Your task to perform on an android device: turn on bluetooth scan Image 0: 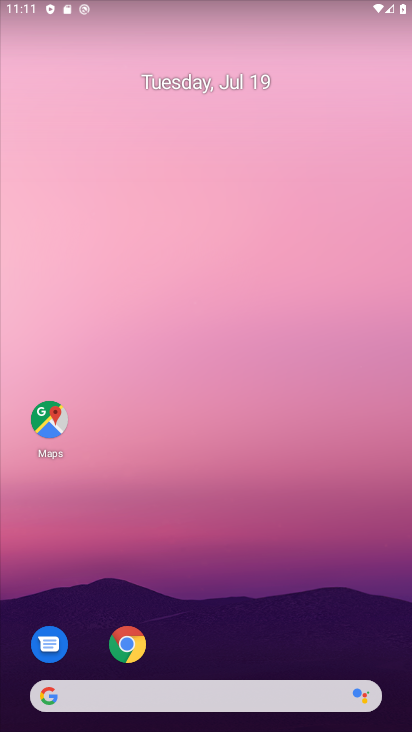
Step 0: press home button
Your task to perform on an android device: turn on bluetooth scan Image 1: 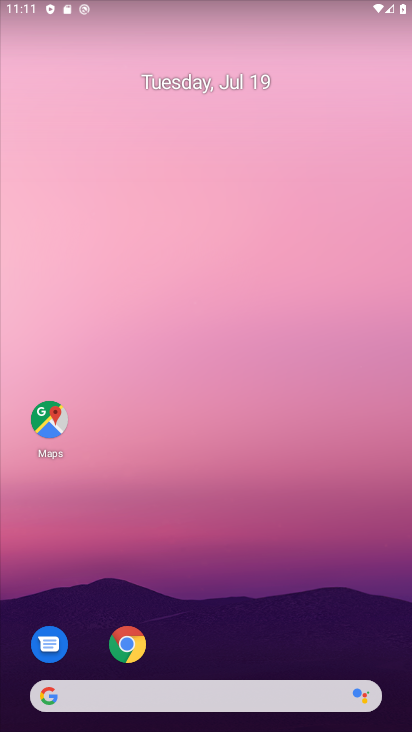
Step 1: press home button
Your task to perform on an android device: turn on bluetooth scan Image 2: 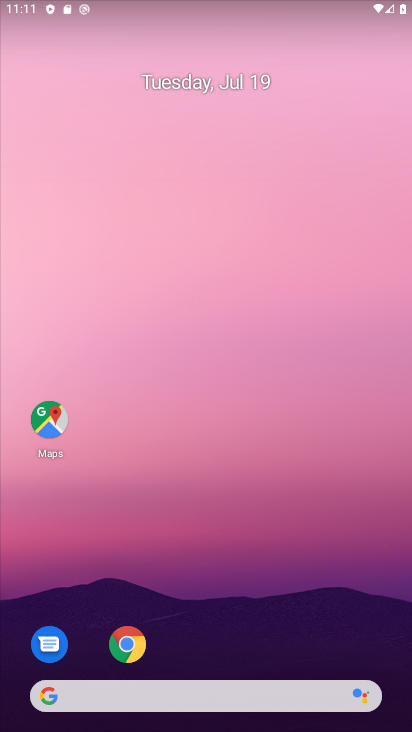
Step 2: drag from (175, 626) to (130, 186)
Your task to perform on an android device: turn on bluetooth scan Image 3: 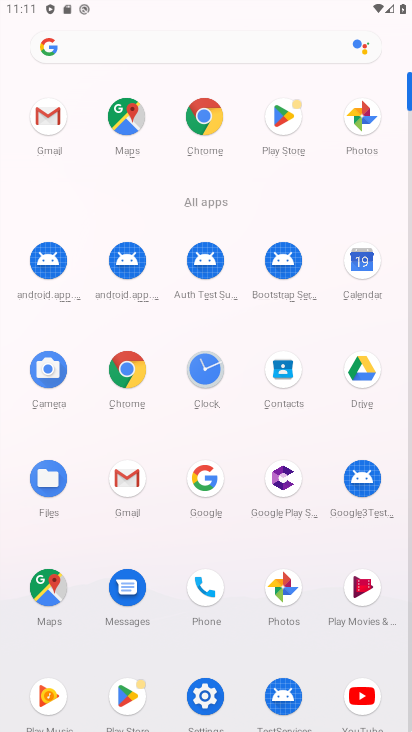
Step 3: click (214, 694)
Your task to perform on an android device: turn on bluetooth scan Image 4: 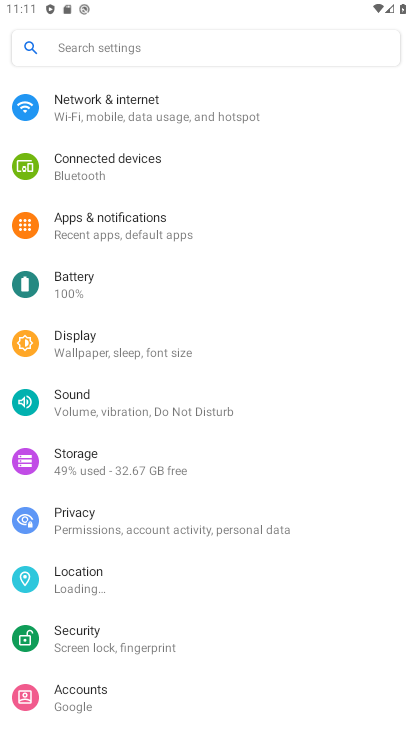
Step 4: click (202, 681)
Your task to perform on an android device: turn on bluetooth scan Image 5: 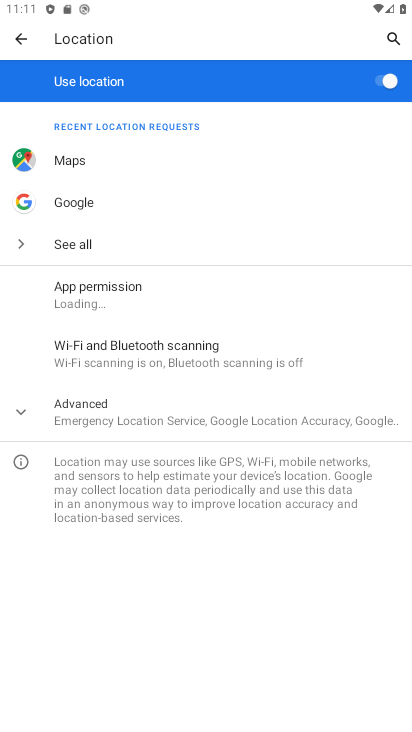
Step 5: click (230, 367)
Your task to perform on an android device: turn on bluetooth scan Image 6: 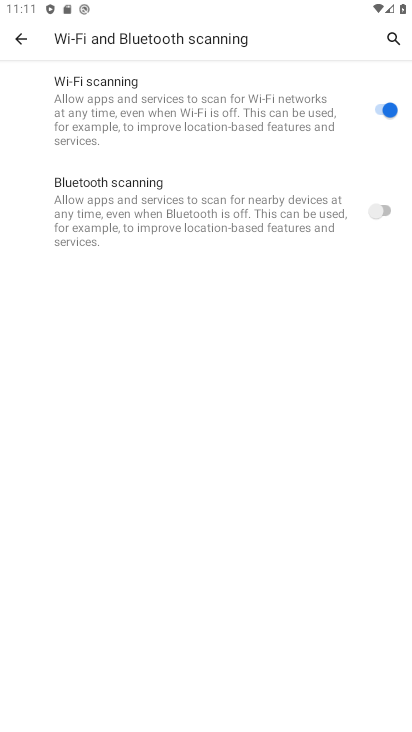
Step 6: click (194, 180)
Your task to perform on an android device: turn on bluetooth scan Image 7: 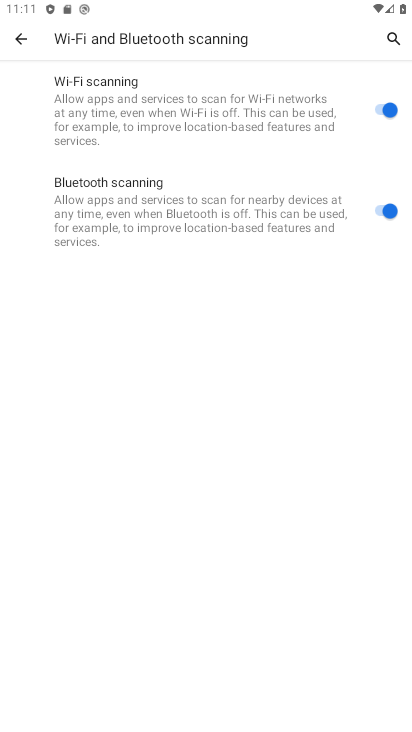
Step 7: task complete